Your task to perform on an android device: Go to settings Image 0: 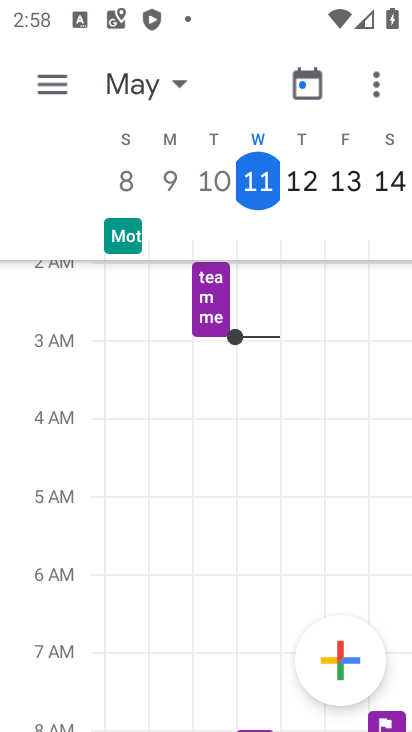
Step 0: press home button
Your task to perform on an android device: Go to settings Image 1: 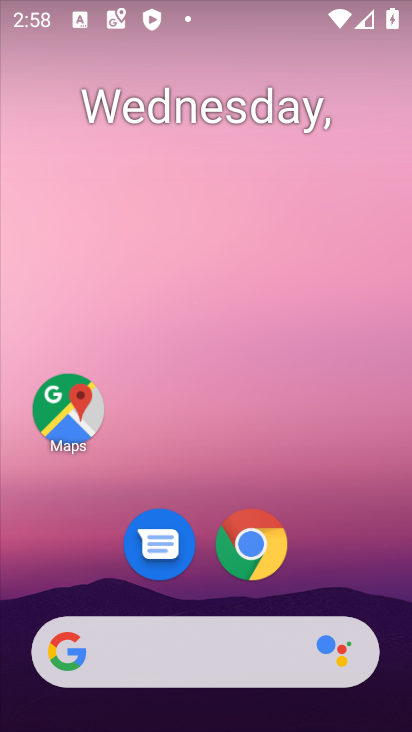
Step 1: drag from (393, 633) to (299, 98)
Your task to perform on an android device: Go to settings Image 2: 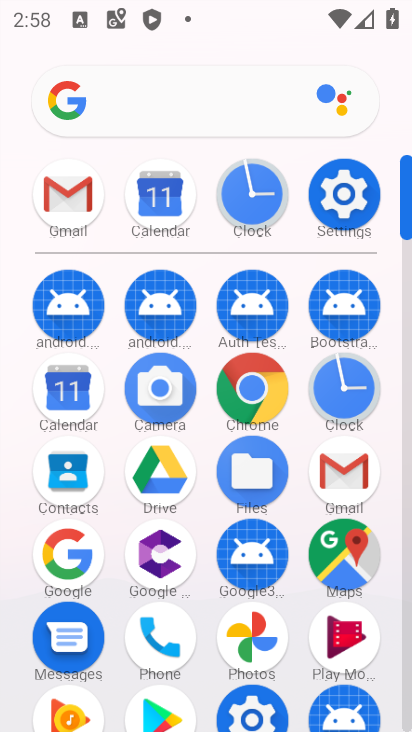
Step 2: click (406, 711)
Your task to perform on an android device: Go to settings Image 3: 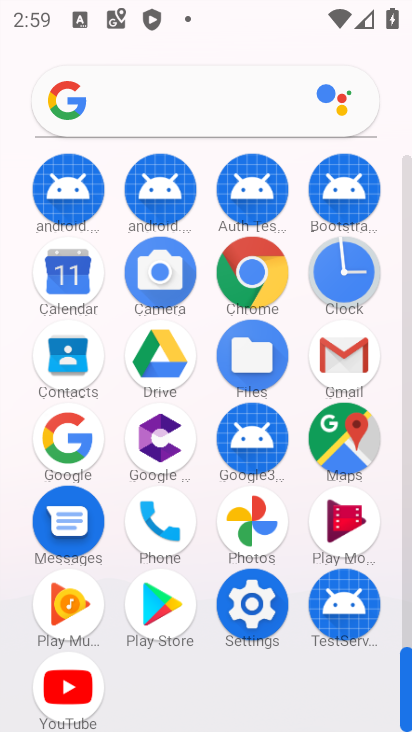
Step 3: click (252, 602)
Your task to perform on an android device: Go to settings Image 4: 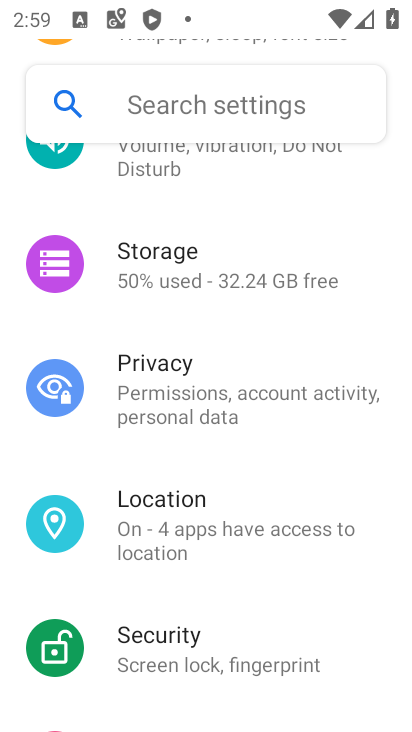
Step 4: drag from (376, 204) to (363, 534)
Your task to perform on an android device: Go to settings Image 5: 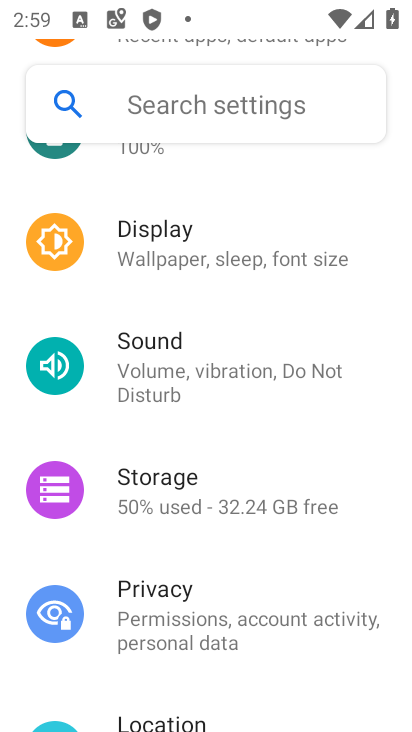
Step 5: drag from (368, 211) to (334, 530)
Your task to perform on an android device: Go to settings Image 6: 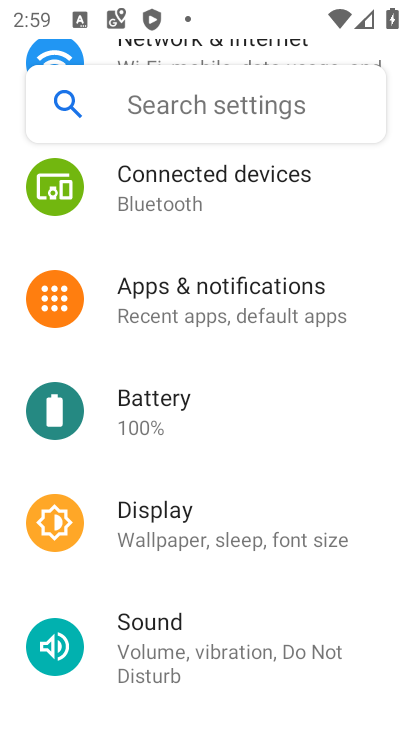
Step 6: drag from (365, 259) to (369, 566)
Your task to perform on an android device: Go to settings Image 7: 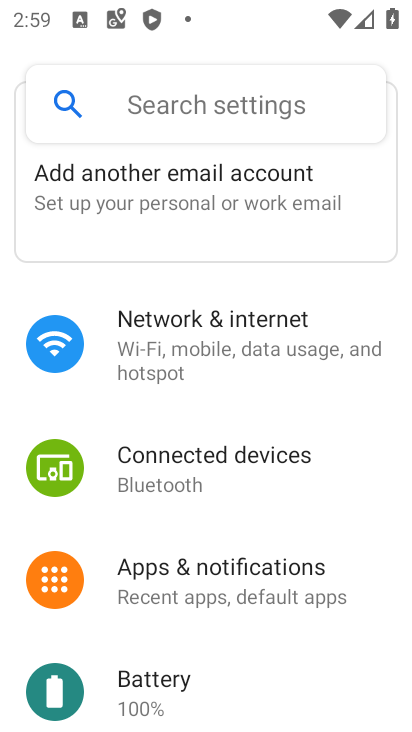
Step 7: click (141, 326)
Your task to perform on an android device: Go to settings Image 8: 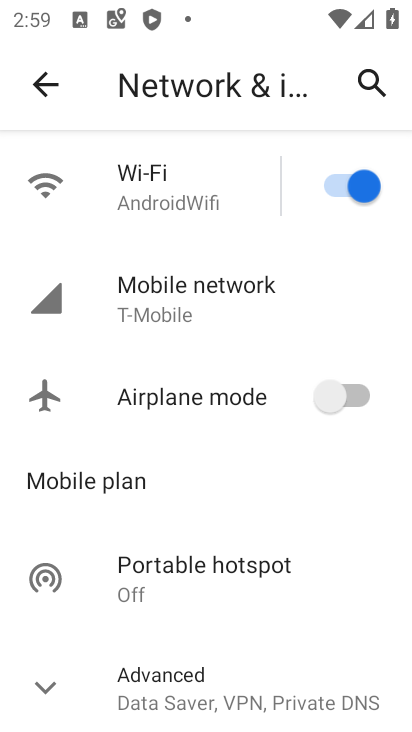
Step 8: click (45, 689)
Your task to perform on an android device: Go to settings Image 9: 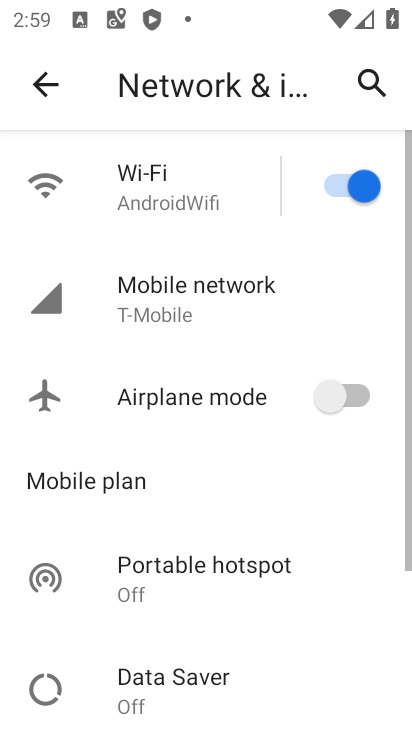
Step 9: task complete